Your task to perform on an android device: manage bookmarks in the chrome app Image 0: 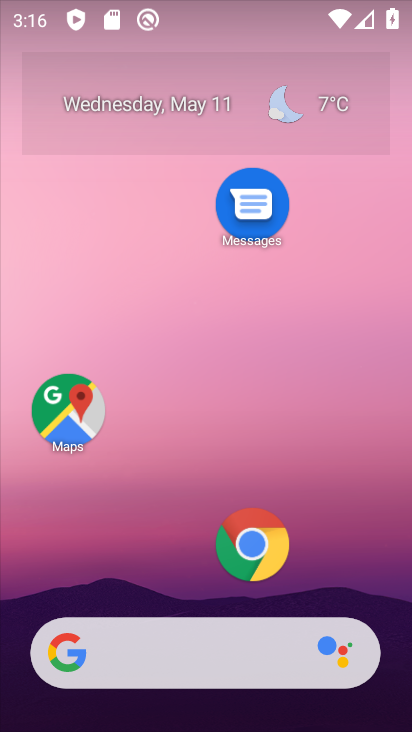
Step 0: drag from (200, 376) to (245, 41)
Your task to perform on an android device: manage bookmarks in the chrome app Image 1: 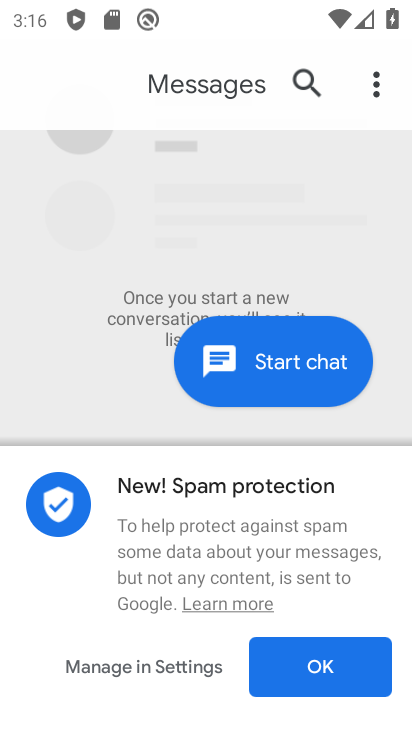
Step 1: press back button
Your task to perform on an android device: manage bookmarks in the chrome app Image 2: 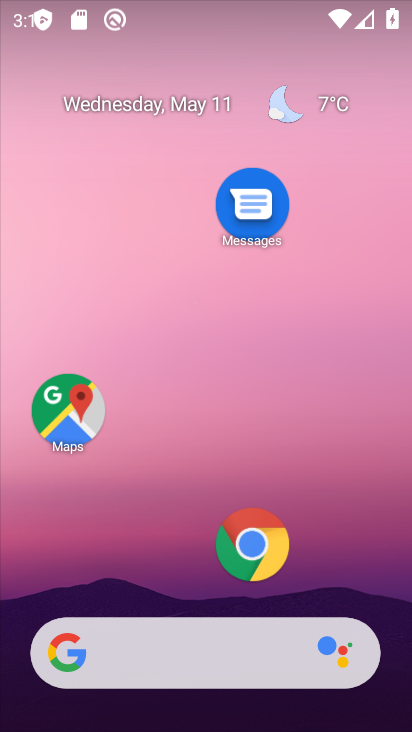
Step 2: click (259, 576)
Your task to perform on an android device: manage bookmarks in the chrome app Image 3: 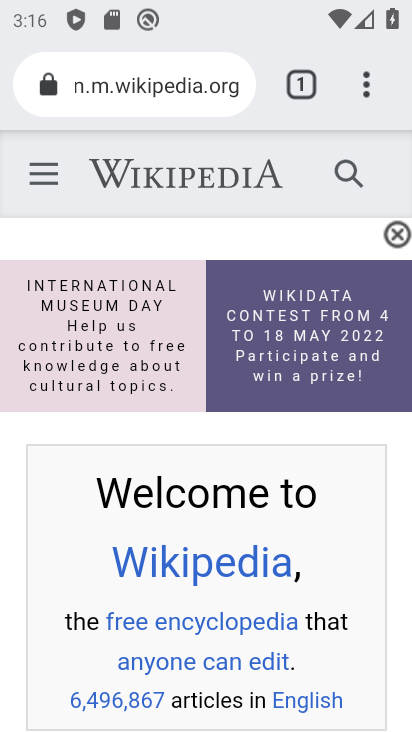
Step 3: task complete